Your task to perform on an android device: When is my next meeting? Image 0: 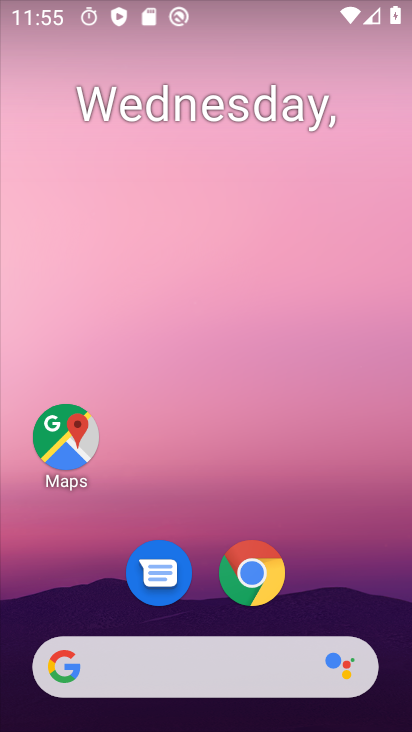
Step 0: drag from (379, 467) to (385, 206)
Your task to perform on an android device: When is my next meeting? Image 1: 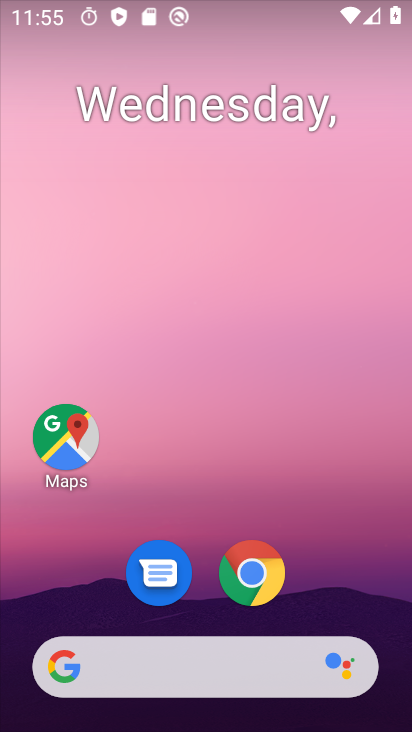
Step 1: drag from (360, 529) to (333, 175)
Your task to perform on an android device: When is my next meeting? Image 2: 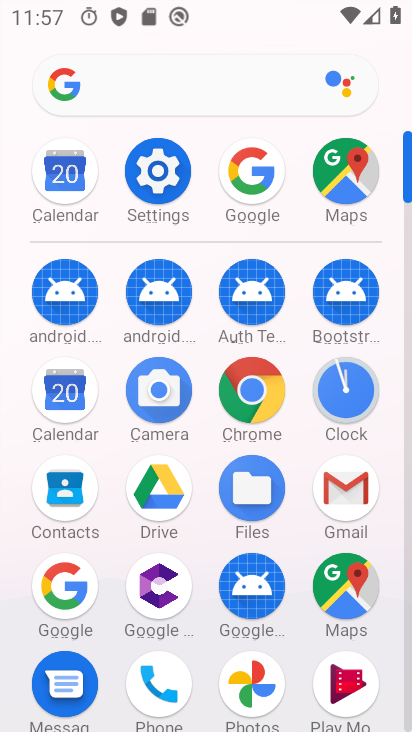
Step 2: click (71, 400)
Your task to perform on an android device: When is my next meeting? Image 3: 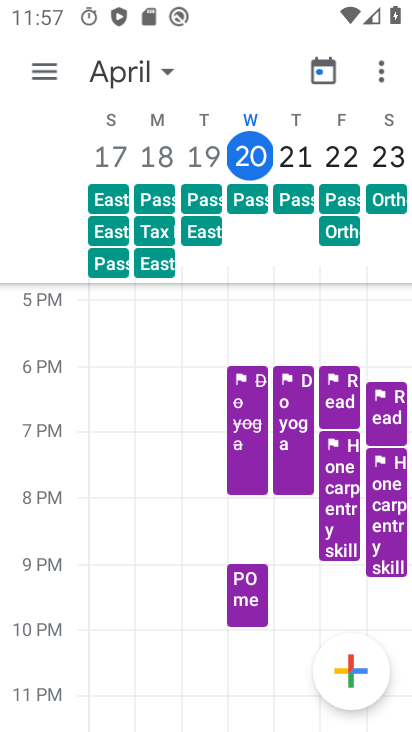
Step 3: click (45, 63)
Your task to perform on an android device: When is my next meeting? Image 4: 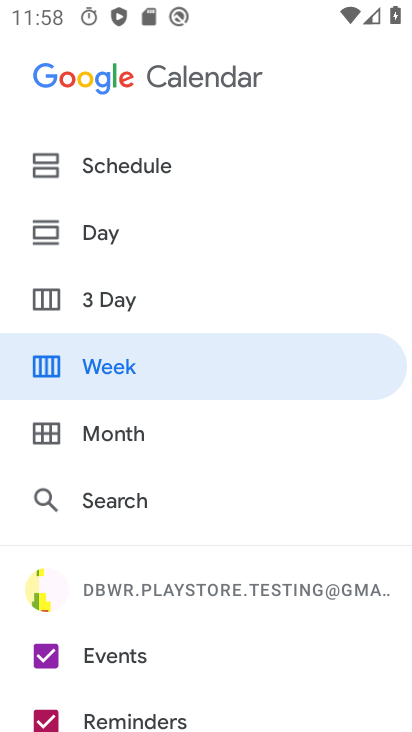
Step 4: task complete